Your task to perform on an android device: turn off smart reply in the gmail app Image 0: 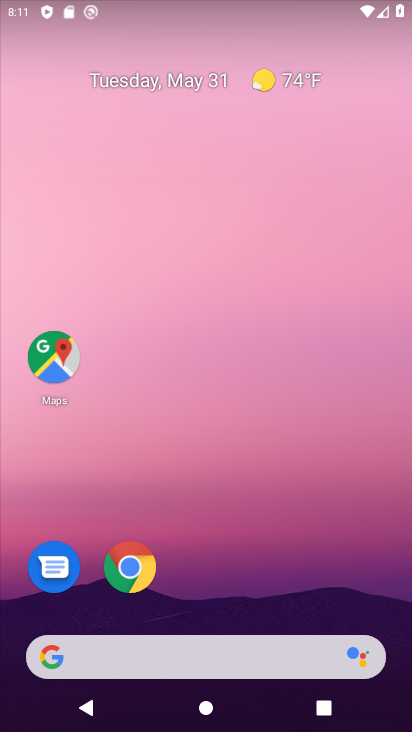
Step 0: drag from (268, 635) to (173, 134)
Your task to perform on an android device: turn off smart reply in the gmail app Image 1: 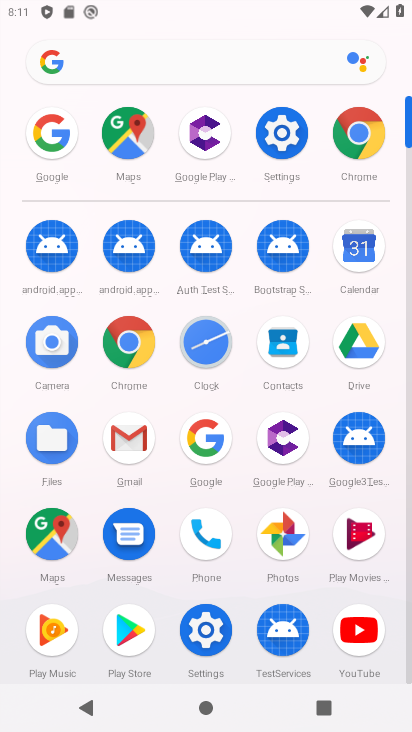
Step 1: click (130, 447)
Your task to perform on an android device: turn off smart reply in the gmail app Image 2: 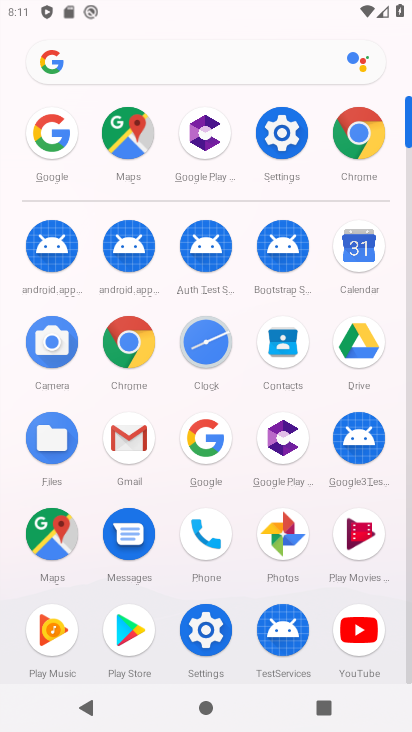
Step 2: click (130, 447)
Your task to perform on an android device: turn off smart reply in the gmail app Image 3: 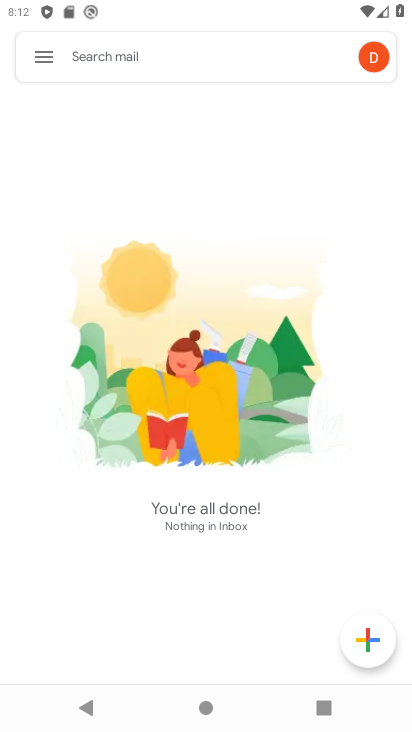
Step 3: click (52, 63)
Your task to perform on an android device: turn off smart reply in the gmail app Image 4: 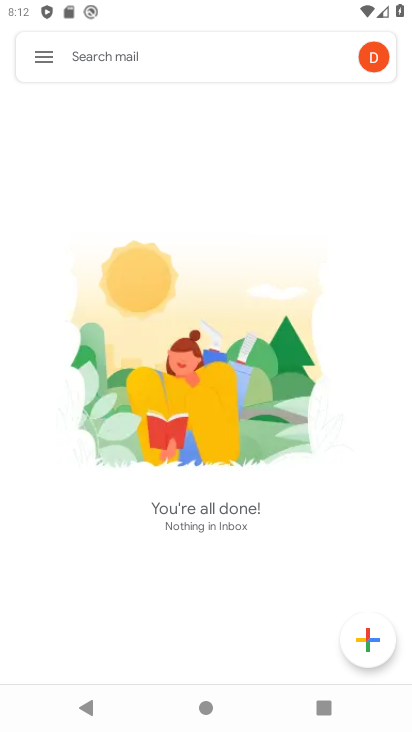
Step 4: click (46, 56)
Your task to perform on an android device: turn off smart reply in the gmail app Image 5: 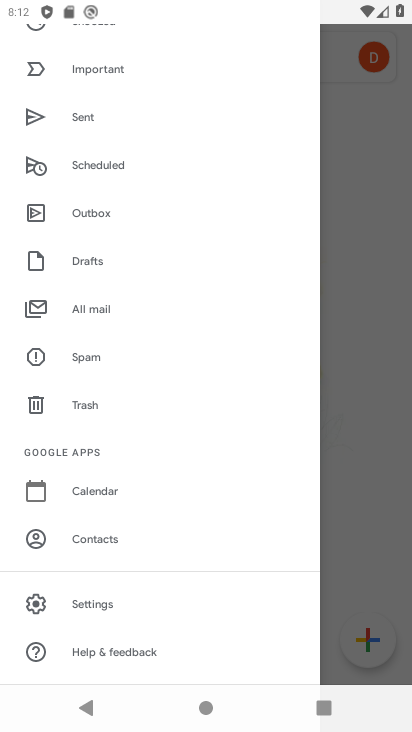
Step 5: click (92, 606)
Your task to perform on an android device: turn off smart reply in the gmail app Image 6: 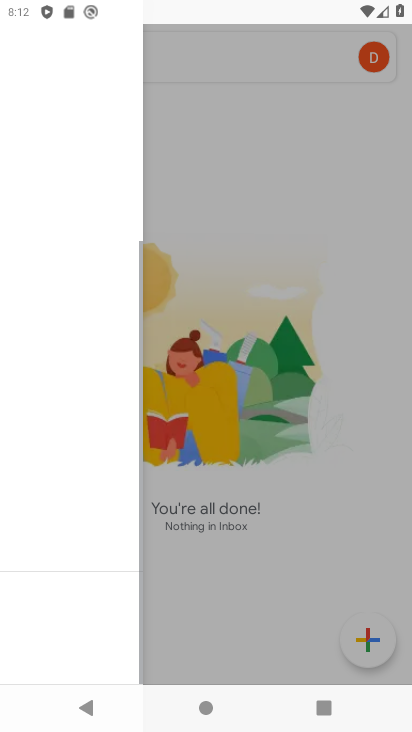
Step 6: click (99, 600)
Your task to perform on an android device: turn off smart reply in the gmail app Image 7: 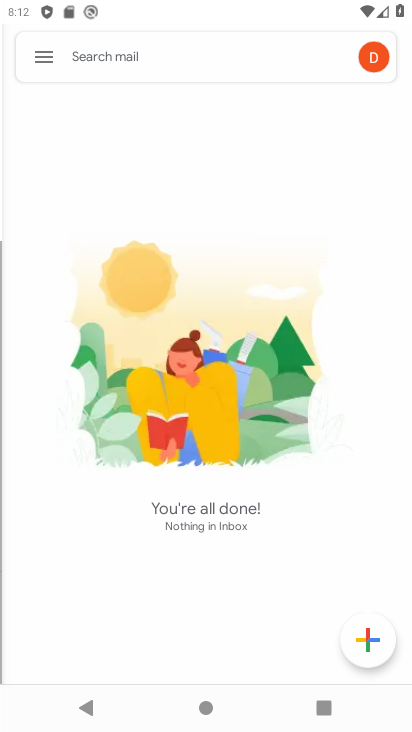
Step 7: click (99, 600)
Your task to perform on an android device: turn off smart reply in the gmail app Image 8: 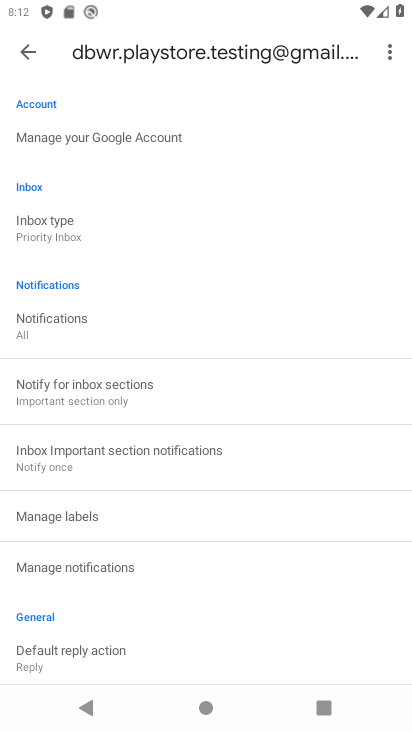
Step 8: drag from (67, 568) to (65, 128)
Your task to perform on an android device: turn off smart reply in the gmail app Image 9: 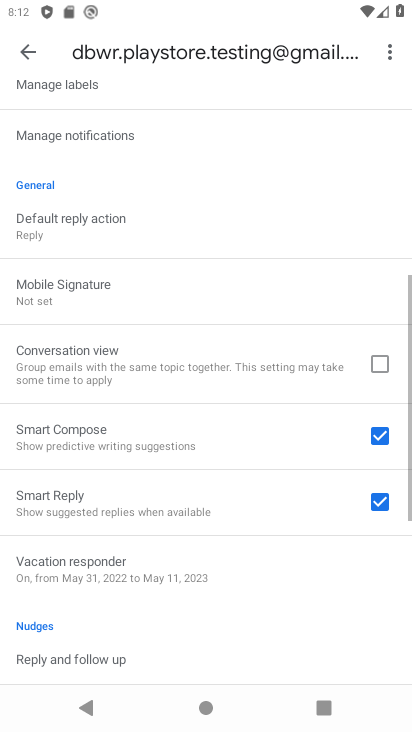
Step 9: drag from (83, 493) to (116, 249)
Your task to perform on an android device: turn off smart reply in the gmail app Image 10: 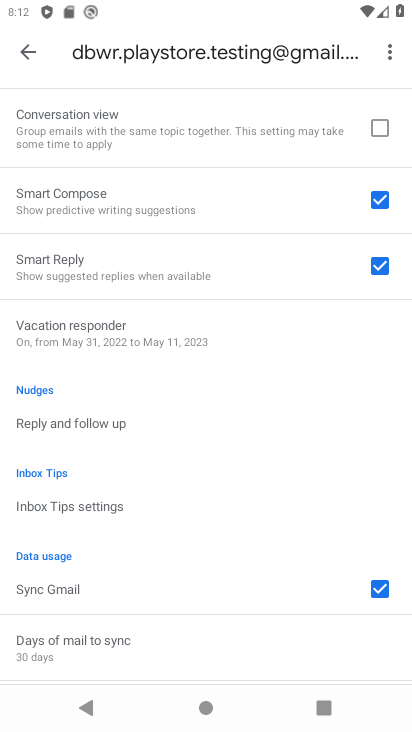
Step 10: click (376, 259)
Your task to perform on an android device: turn off smart reply in the gmail app Image 11: 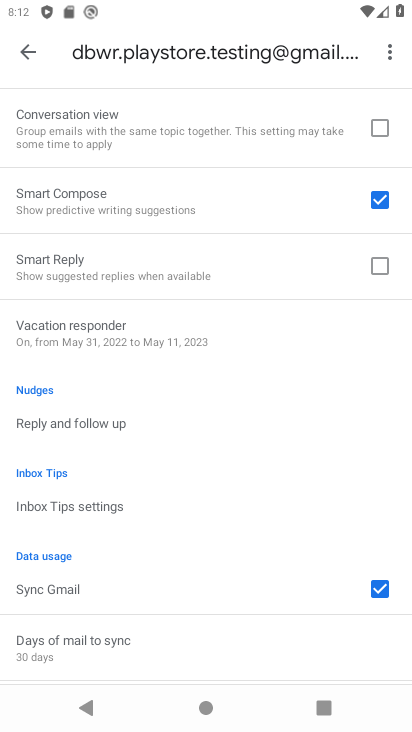
Step 11: task complete